Your task to perform on an android device: toggle wifi Image 0: 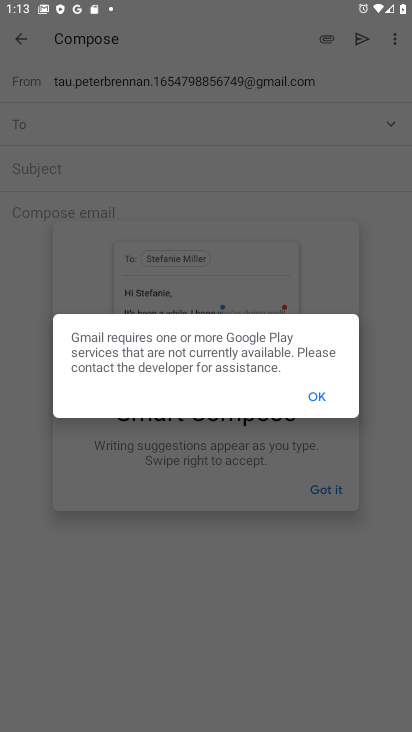
Step 0: press home button
Your task to perform on an android device: toggle wifi Image 1: 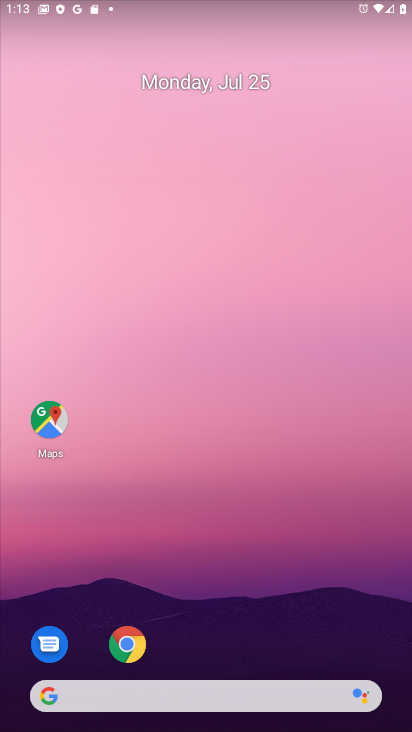
Step 1: drag from (229, 648) to (181, 0)
Your task to perform on an android device: toggle wifi Image 2: 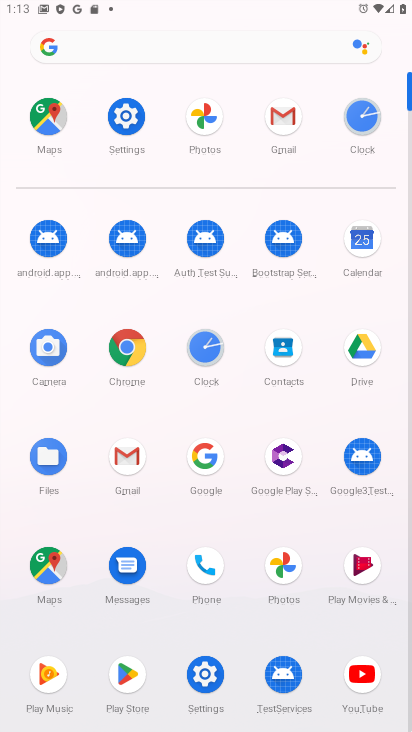
Step 2: click (129, 113)
Your task to perform on an android device: toggle wifi Image 3: 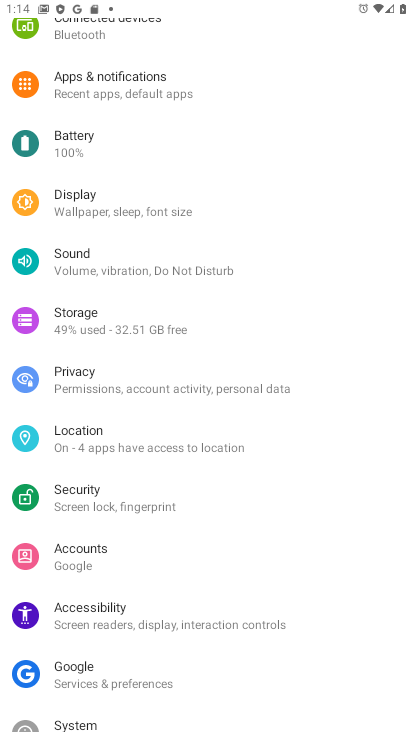
Step 3: drag from (160, 136) to (190, 408)
Your task to perform on an android device: toggle wifi Image 4: 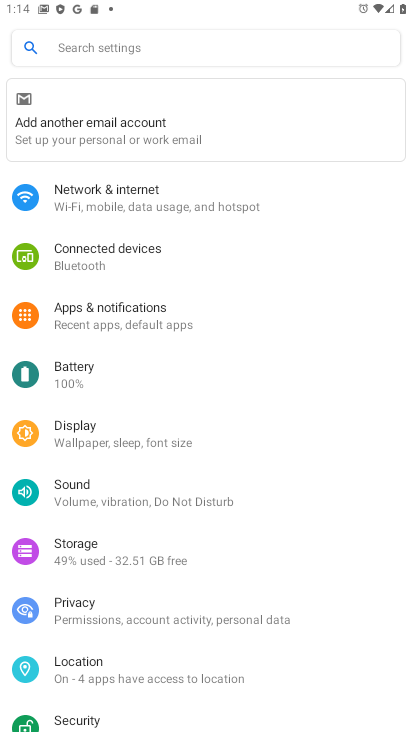
Step 4: click (212, 200)
Your task to perform on an android device: toggle wifi Image 5: 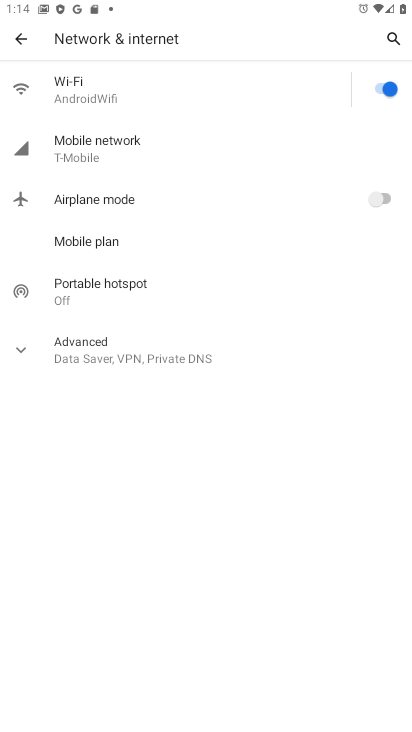
Step 5: click (396, 85)
Your task to perform on an android device: toggle wifi Image 6: 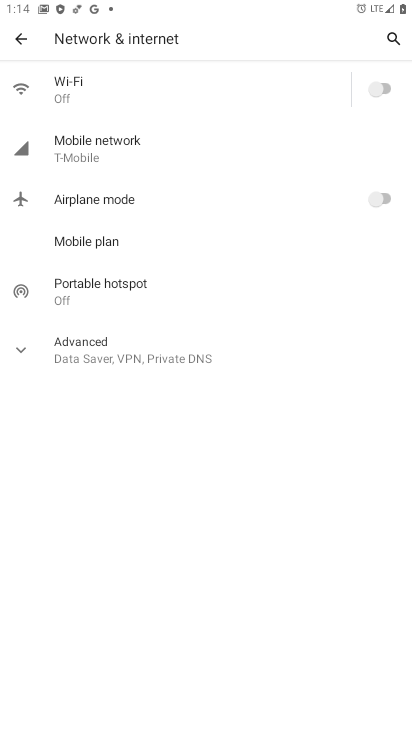
Step 6: task complete